Your task to perform on an android device: turn off javascript in the chrome app Image 0: 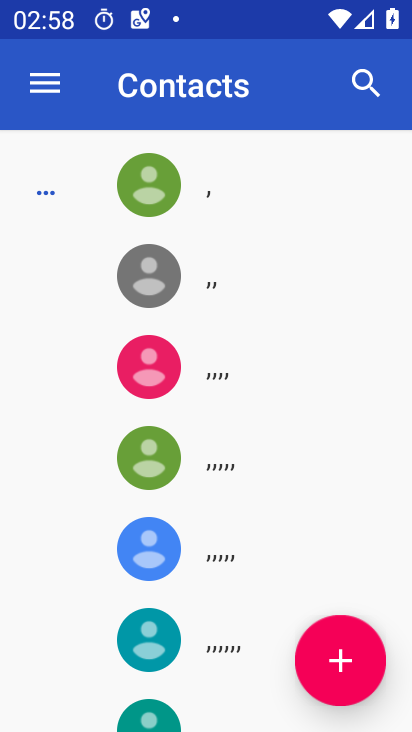
Step 0: press home button
Your task to perform on an android device: turn off javascript in the chrome app Image 1: 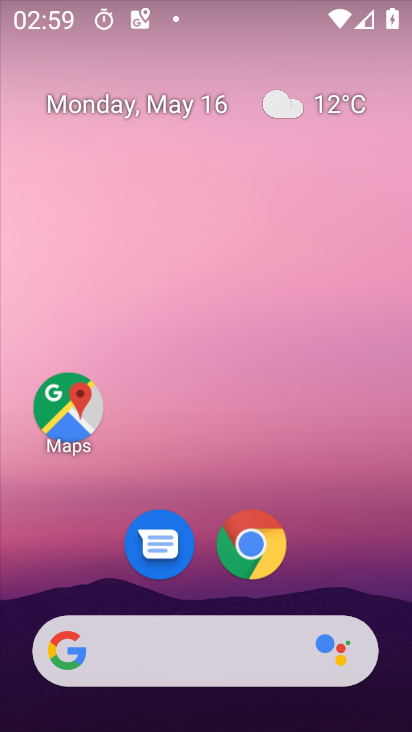
Step 1: click (259, 549)
Your task to perform on an android device: turn off javascript in the chrome app Image 2: 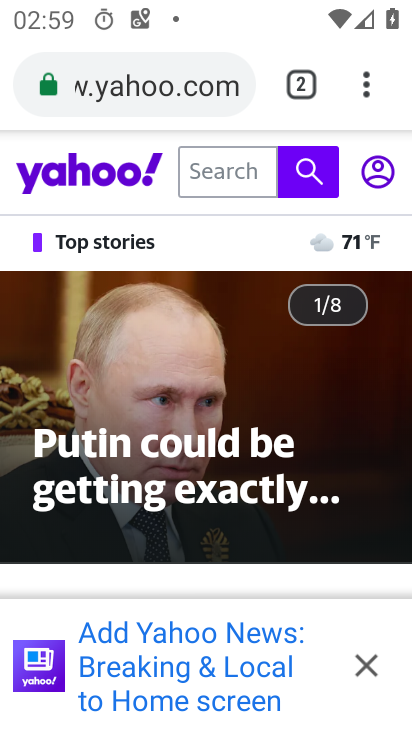
Step 2: click (367, 93)
Your task to perform on an android device: turn off javascript in the chrome app Image 3: 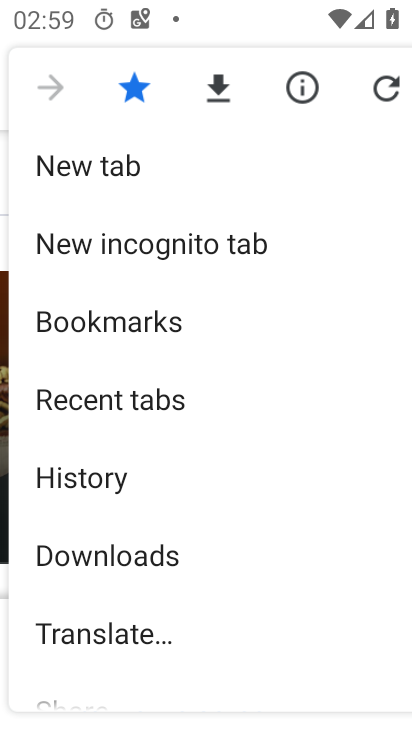
Step 3: drag from (133, 649) to (135, 213)
Your task to perform on an android device: turn off javascript in the chrome app Image 4: 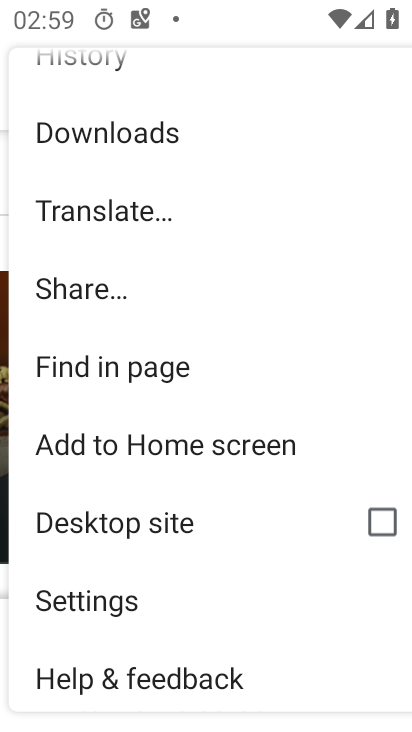
Step 4: click (96, 600)
Your task to perform on an android device: turn off javascript in the chrome app Image 5: 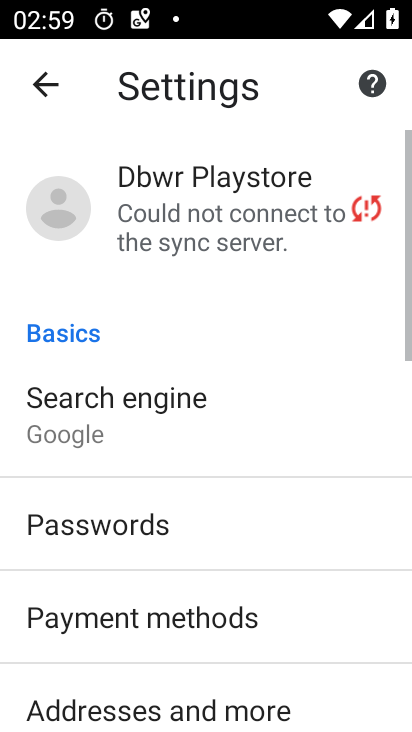
Step 5: drag from (169, 651) to (188, 339)
Your task to perform on an android device: turn off javascript in the chrome app Image 6: 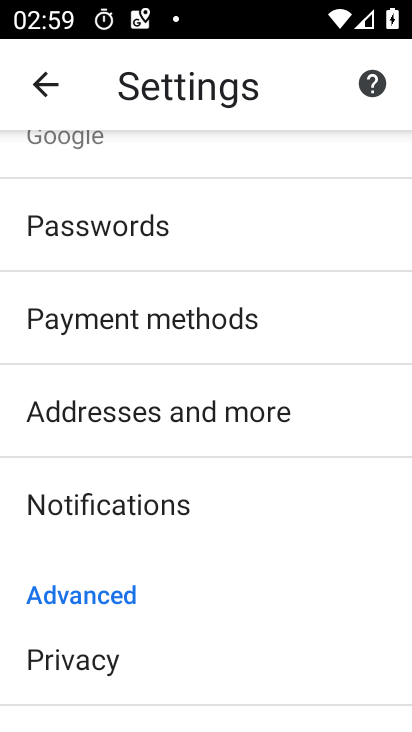
Step 6: drag from (186, 662) to (192, 348)
Your task to perform on an android device: turn off javascript in the chrome app Image 7: 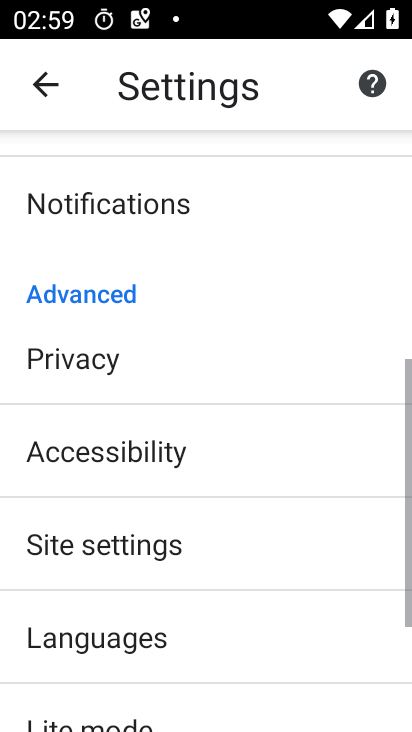
Step 7: drag from (139, 673) to (139, 465)
Your task to perform on an android device: turn off javascript in the chrome app Image 8: 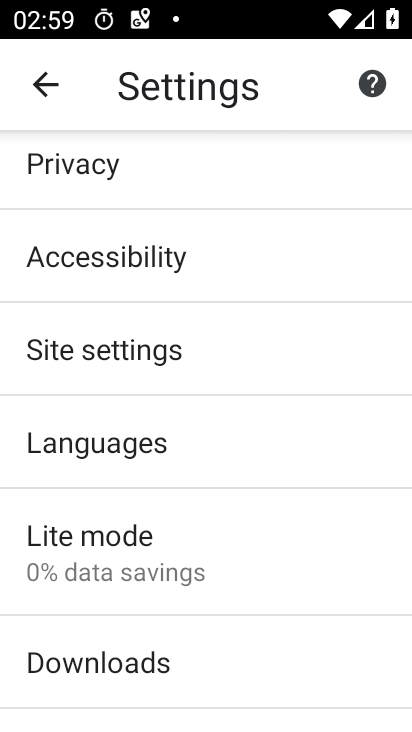
Step 8: click (133, 348)
Your task to perform on an android device: turn off javascript in the chrome app Image 9: 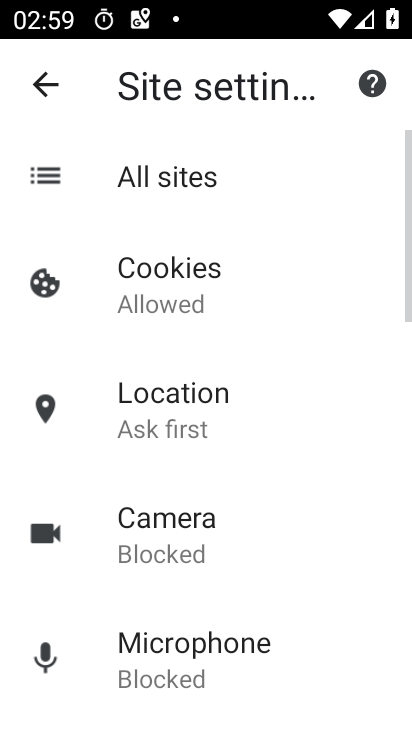
Step 9: drag from (250, 664) to (255, 269)
Your task to perform on an android device: turn off javascript in the chrome app Image 10: 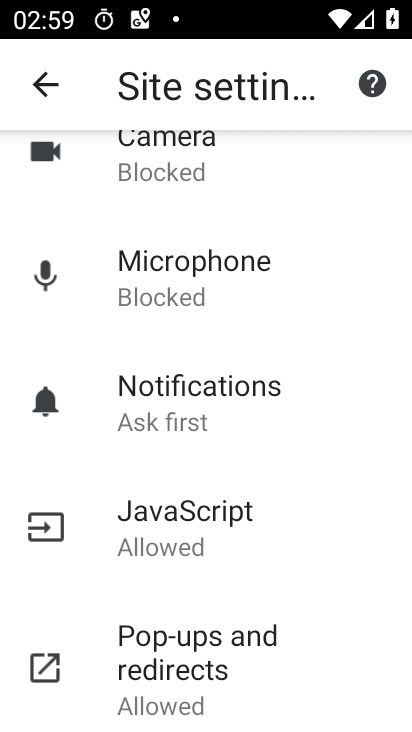
Step 10: click (190, 509)
Your task to perform on an android device: turn off javascript in the chrome app Image 11: 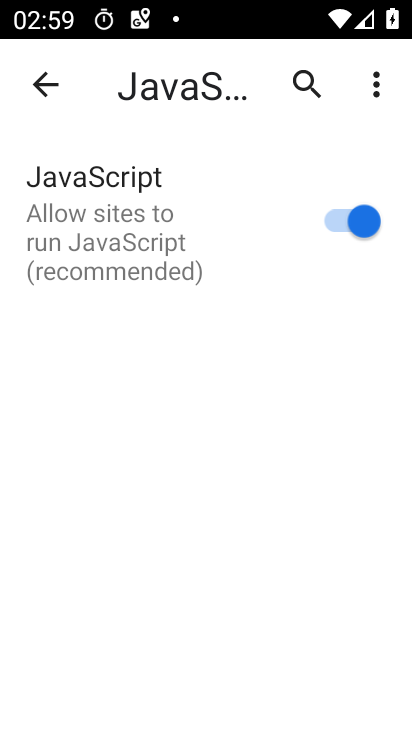
Step 11: click (343, 219)
Your task to perform on an android device: turn off javascript in the chrome app Image 12: 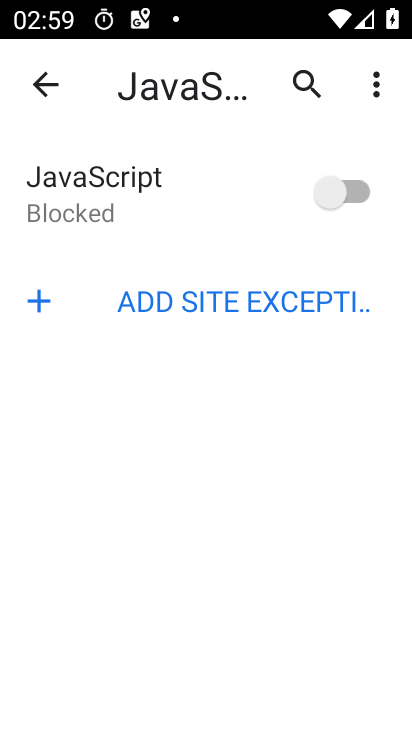
Step 12: task complete